Your task to perform on an android device: Go to location settings Image 0: 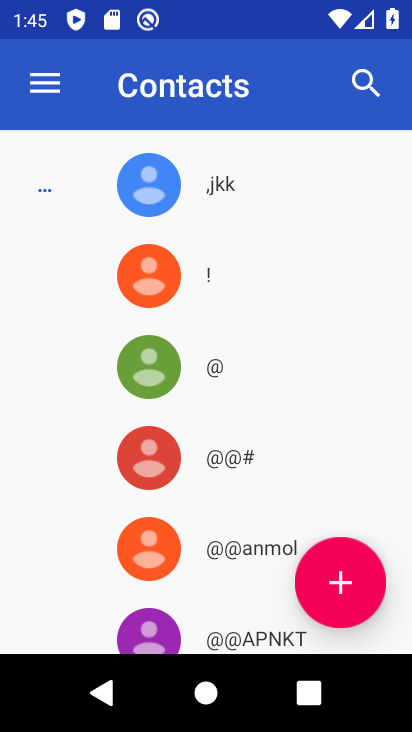
Step 0: press home button
Your task to perform on an android device: Go to location settings Image 1: 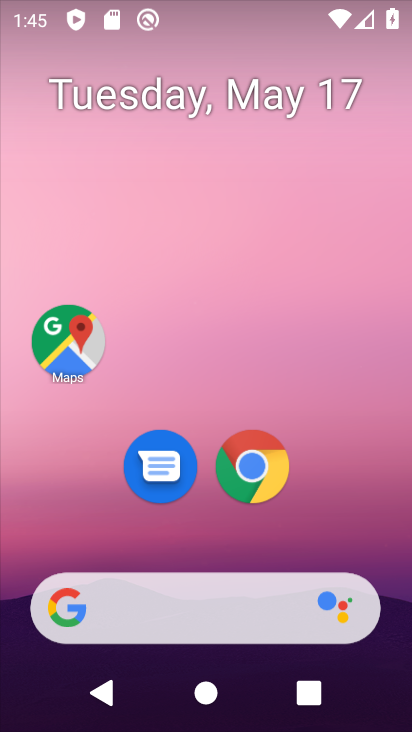
Step 1: drag from (134, 558) to (254, 170)
Your task to perform on an android device: Go to location settings Image 2: 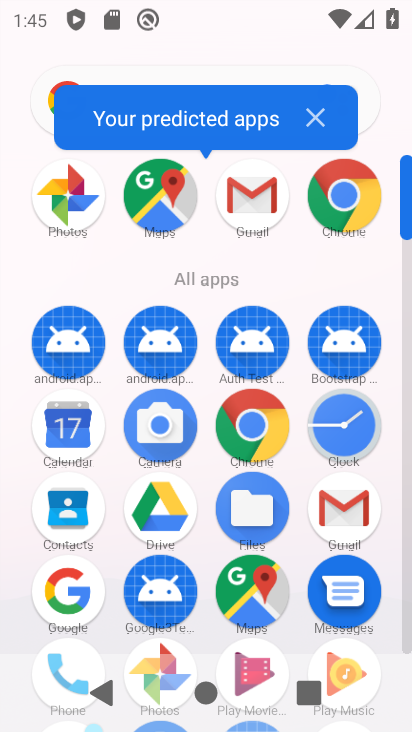
Step 2: drag from (210, 643) to (255, 337)
Your task to perform on an android device: Go to location settings Image 3: 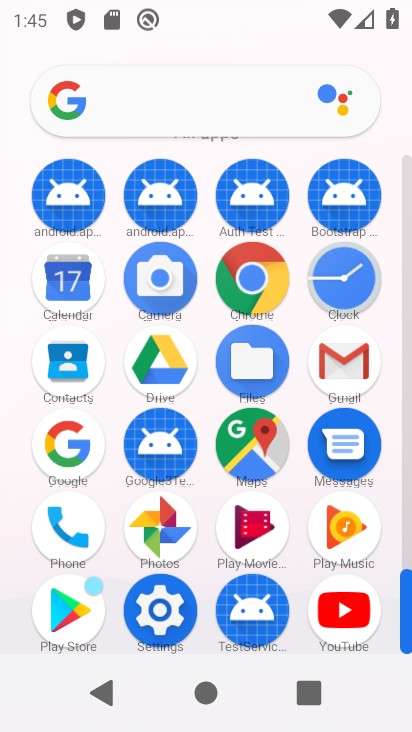
Step 3: click (148, 628)
Your task to perform on an android device: Go to location settings Image 4: 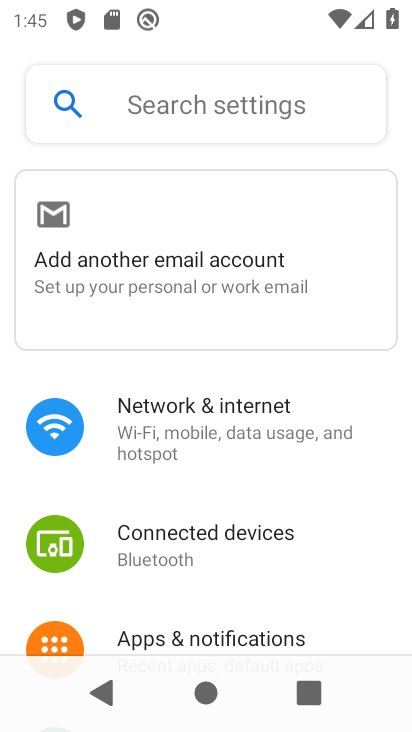
Step 4: drag from (293, 546) to (395, 182)
Your task to perform on an android device: Go to location settings Image 5: 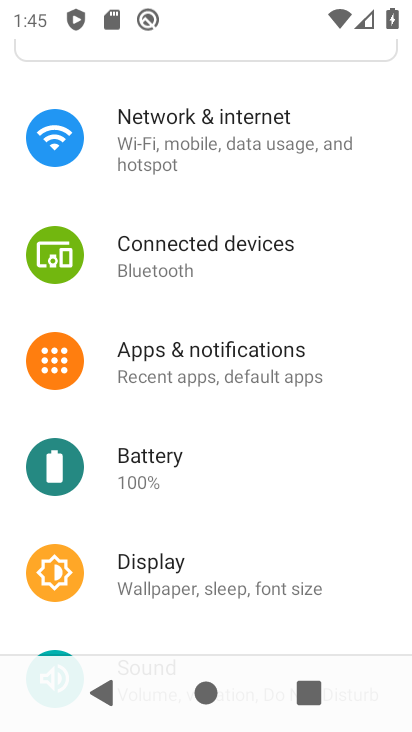
Step 5: drag from (300, 552) to (373, 234)
Your task to perform on an android device: Go to location settings Image 6: 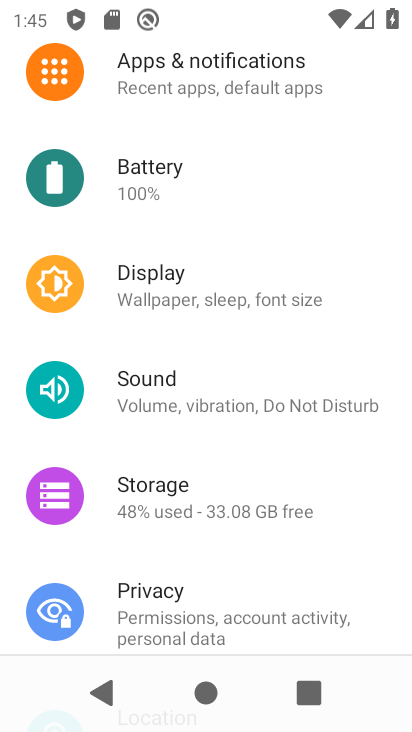
Step 6: drag from (250, 587) to (291, 351)
Your task to perform on an android device: Go to location settings Image 7: 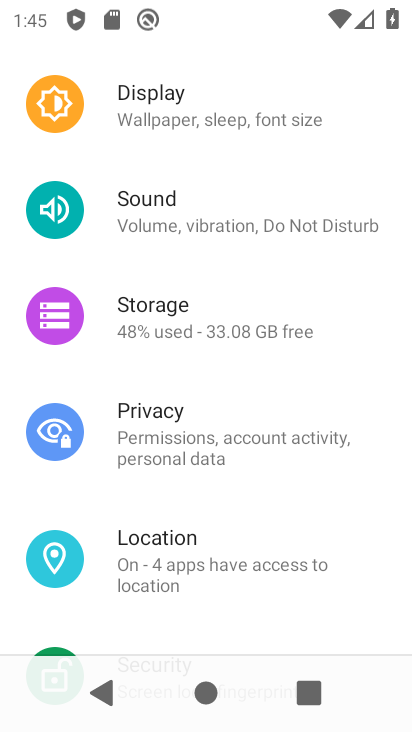
Step 7: click (246, 576)
Your task to perform on an android device: Go to location settings Image 8: 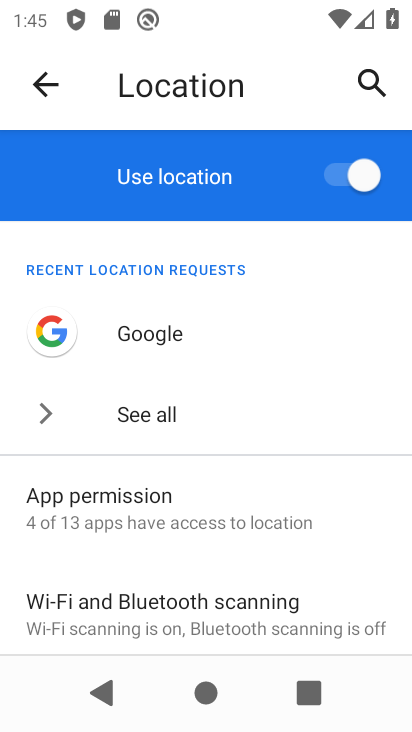
Step 8: task complete